Your task to perform on an android device: Add "sony triple a" to the cart on target.com, then select checkout. Image 0: 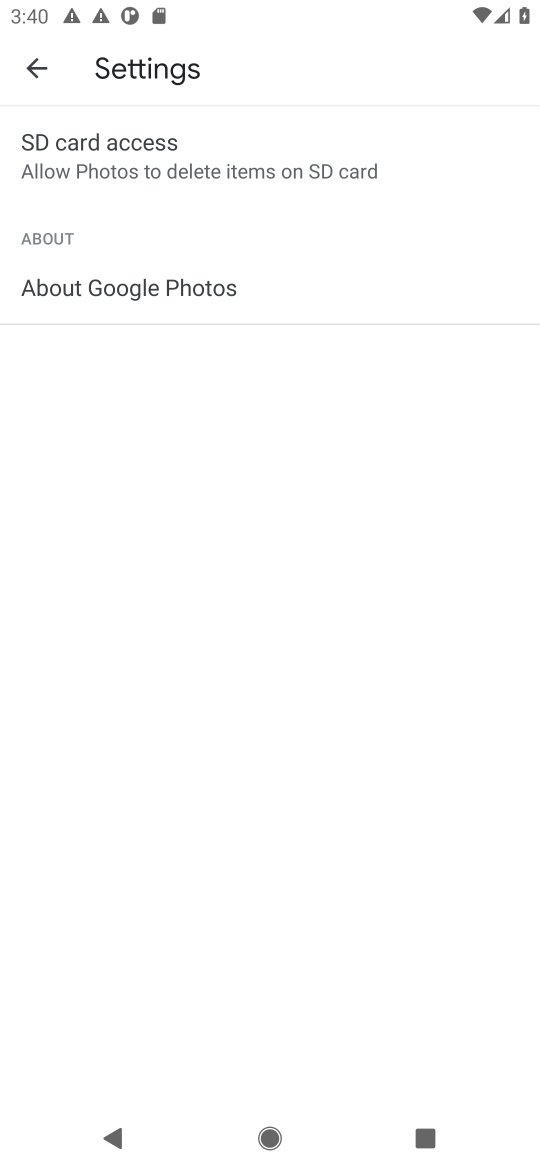
Step 0: press home button
Your task to perform on an android device: Add "sony triple a" to the cart on target.com, then select checkout. Image 1: 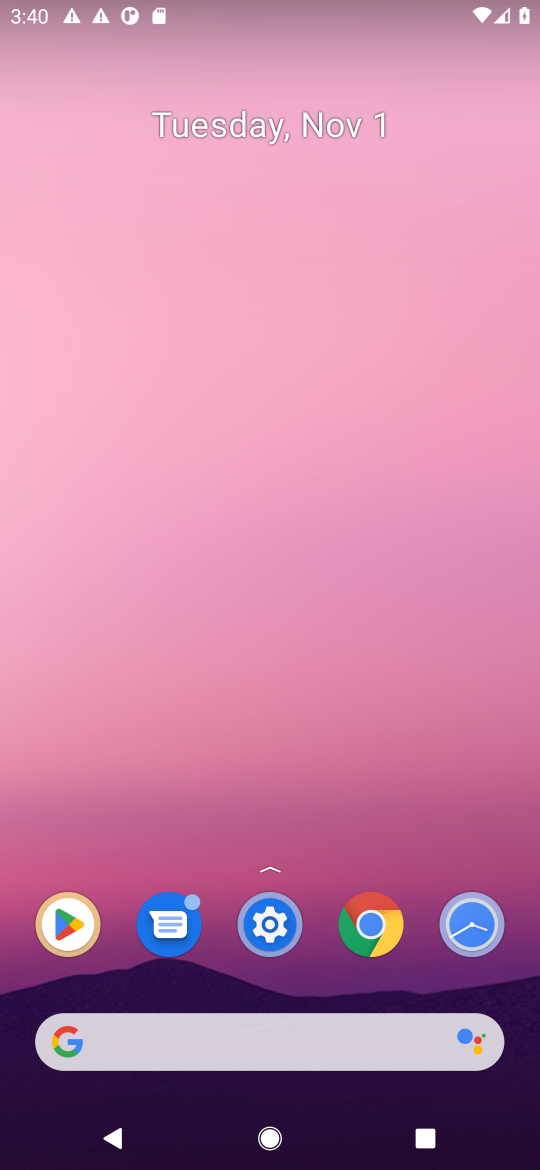
Step 1: drag from (182, 943) to (276, 5)
Your task to perform on an android device: Add "sony triple a" to the cart on target.com, then select checkout. Image 2: 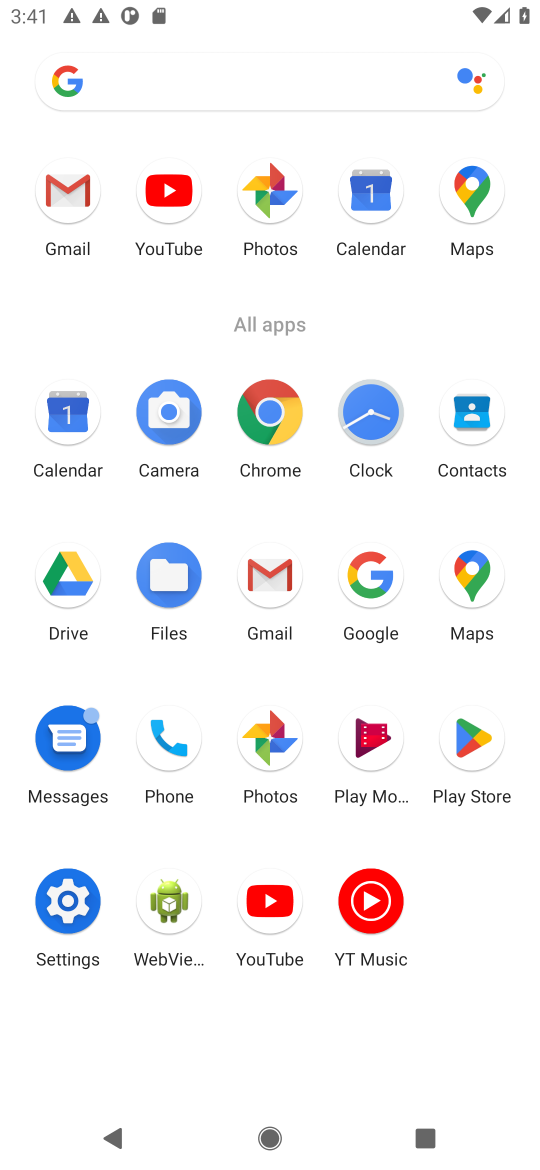
Step 2: click (276, 434)
Your task to perform on an android device: Add "sony triple a" to the cart on target.com, then select checkout. Image 3: 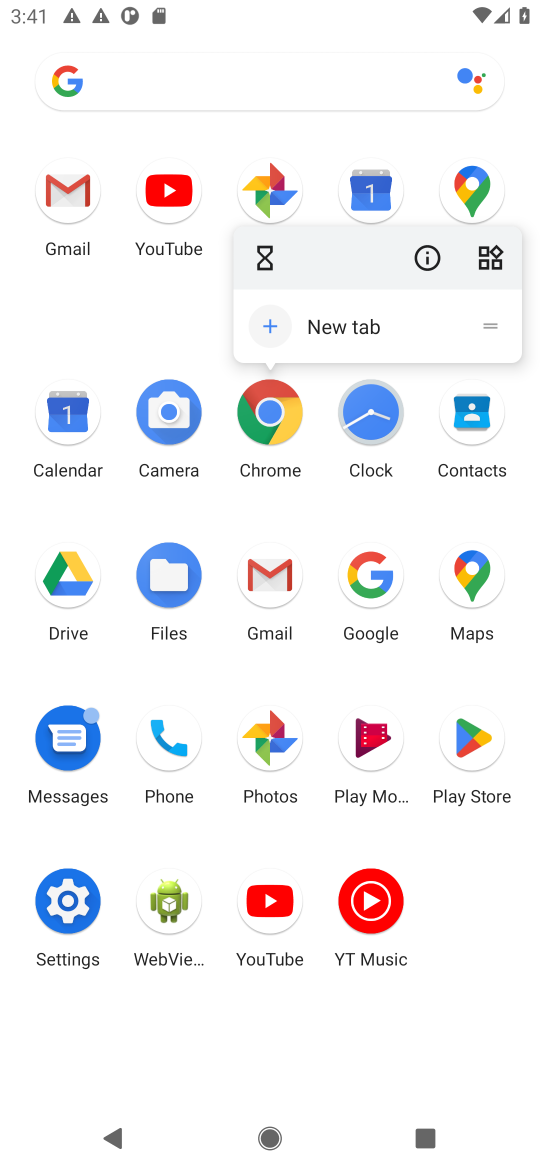
Step 3: click (276, 433)
Your task to perform on an android device: Add "sony triple a" to the cart on target.com, then select checkout. Image 4: 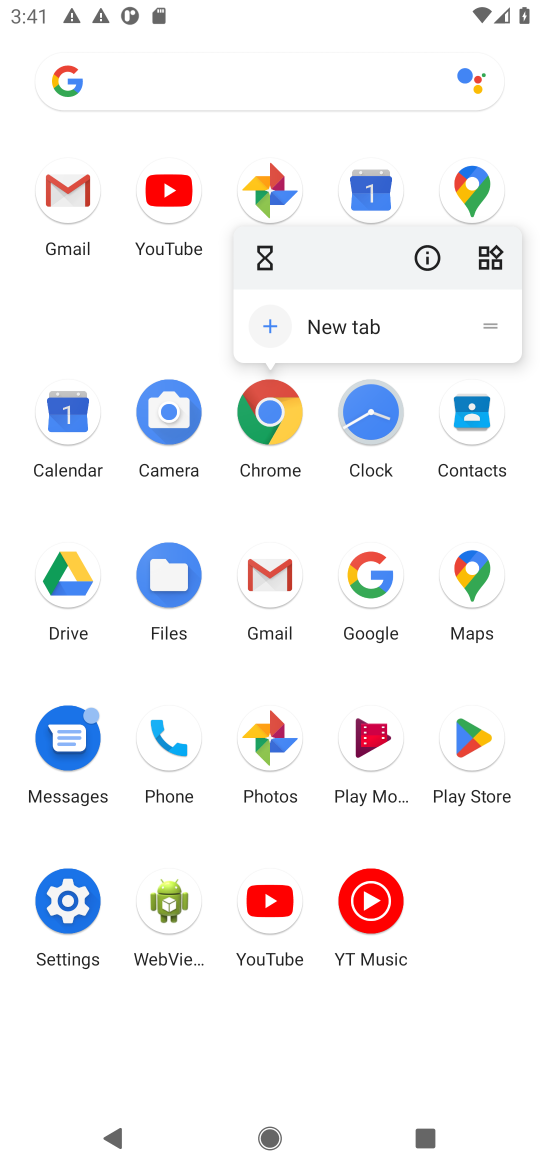
Step 4: click (273, 418)
Your task to perform on an android device: Add "sony triple a" to the cart on target.com, then select checkout. Image 5: 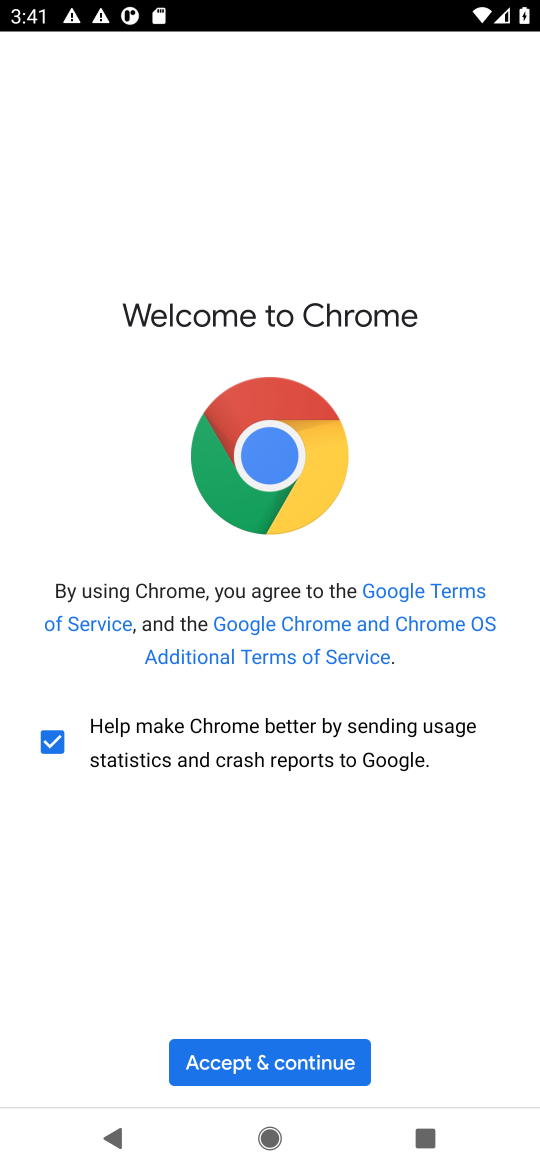
Step 5: click (231, 1062)
Your task to perform on an android device: Add "sony triple a" to the cart on target.com, then select checkout. Image 6: 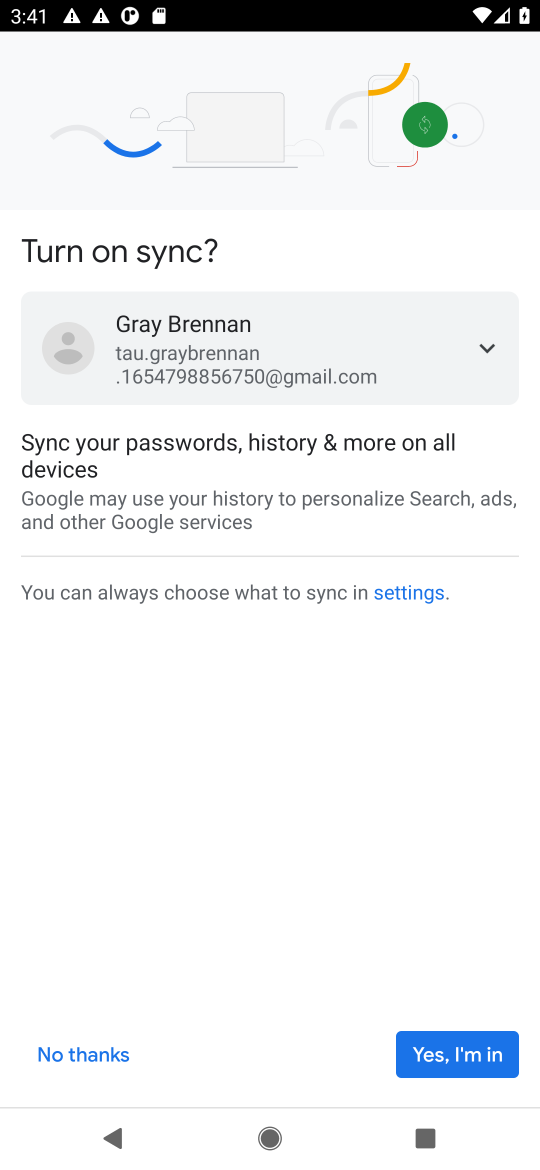
Step 6: click (437, 1047)
Your task to perform on an android device: Add "sony triple a" to the cart on target.com, then select checkout. Image 7: 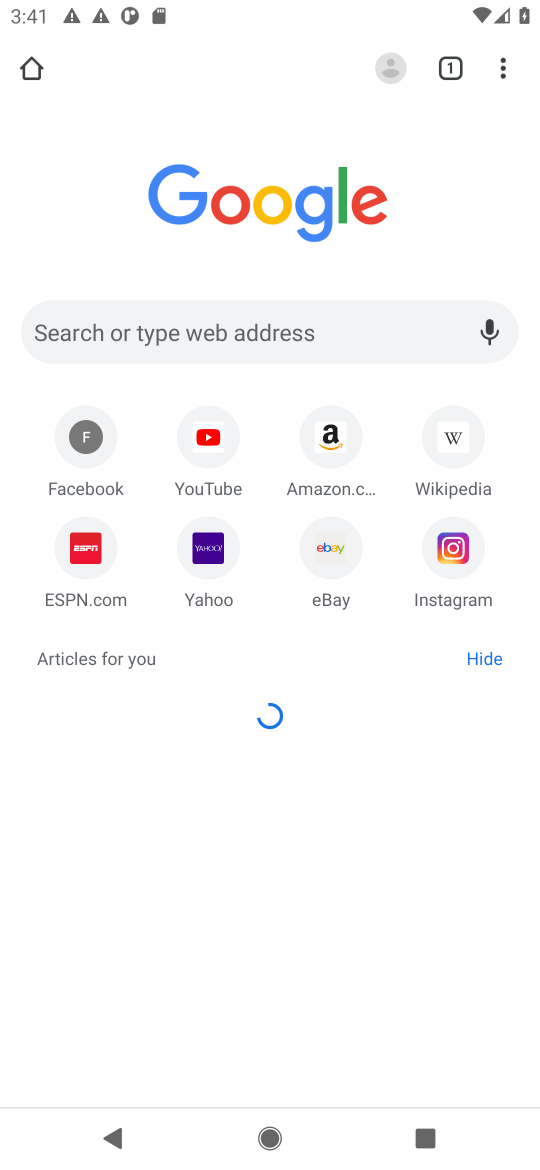
Step 7: click (205, 327)
Your task to perform on an android device: Add "sony triple a" to the cart on target.com, then select checkout. Image 8: 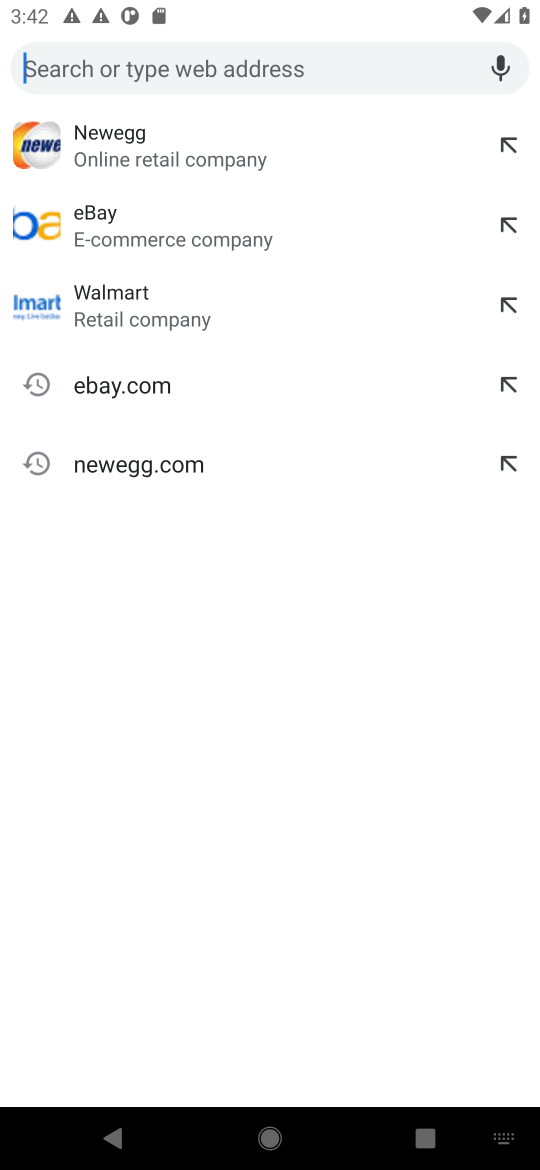
Step 8: type "target.com"
Your task to perform on an android device: Add "sony triple a" to the cart on target.com, then select checkout. Image 9: 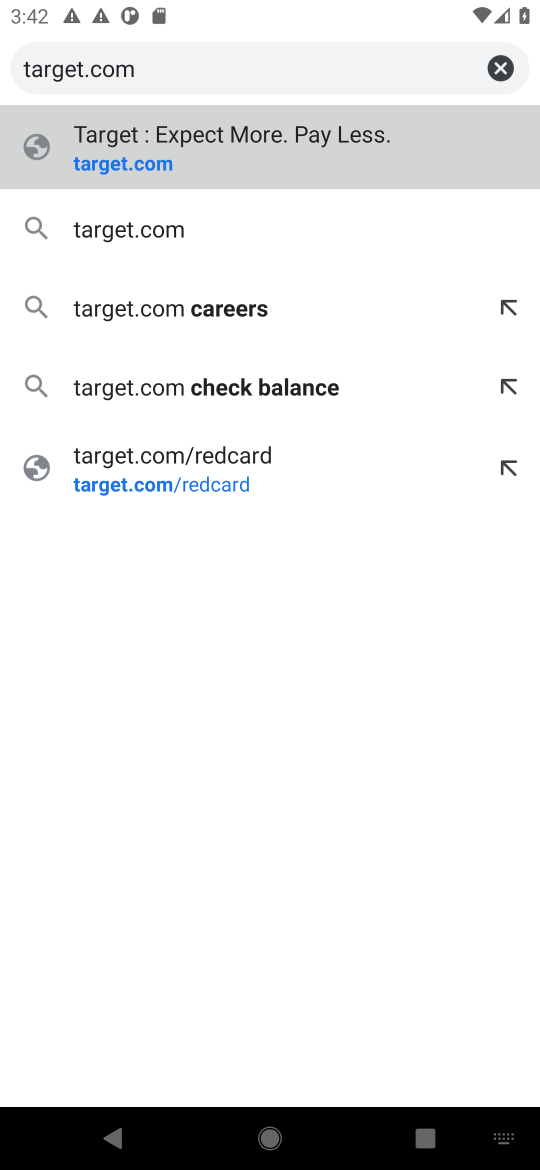
Step 9: press enter
Your task to perform on an android device: Add "sony triple a" to the cart on target.com, then select checkout. Image 10: 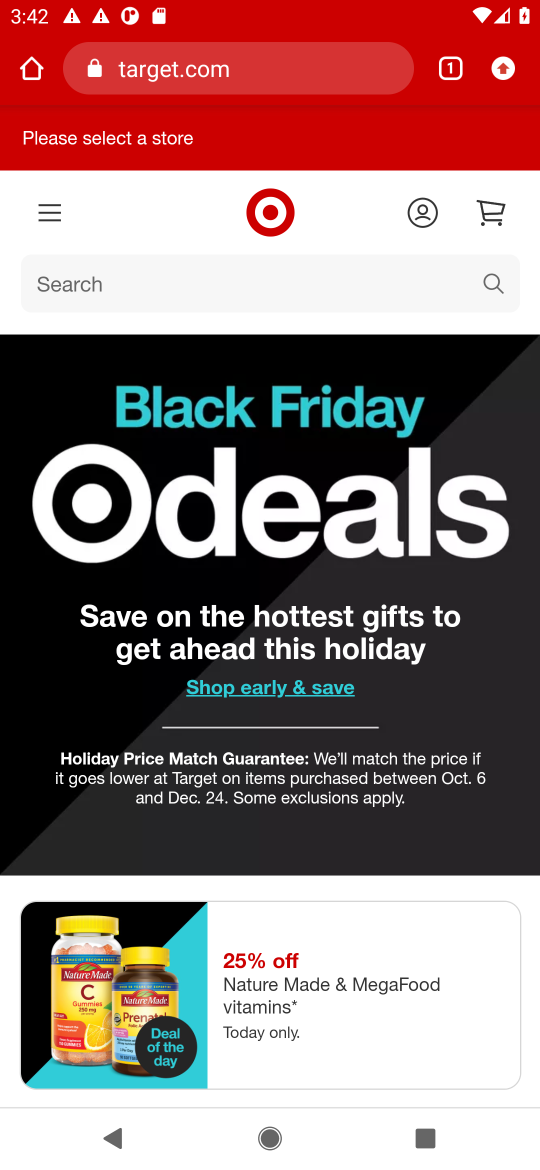
Step 10: click (357, 274)
Your task to perform on an android device: Add "sony triple a" to the cart on target.com, then select checkout. Image 11: 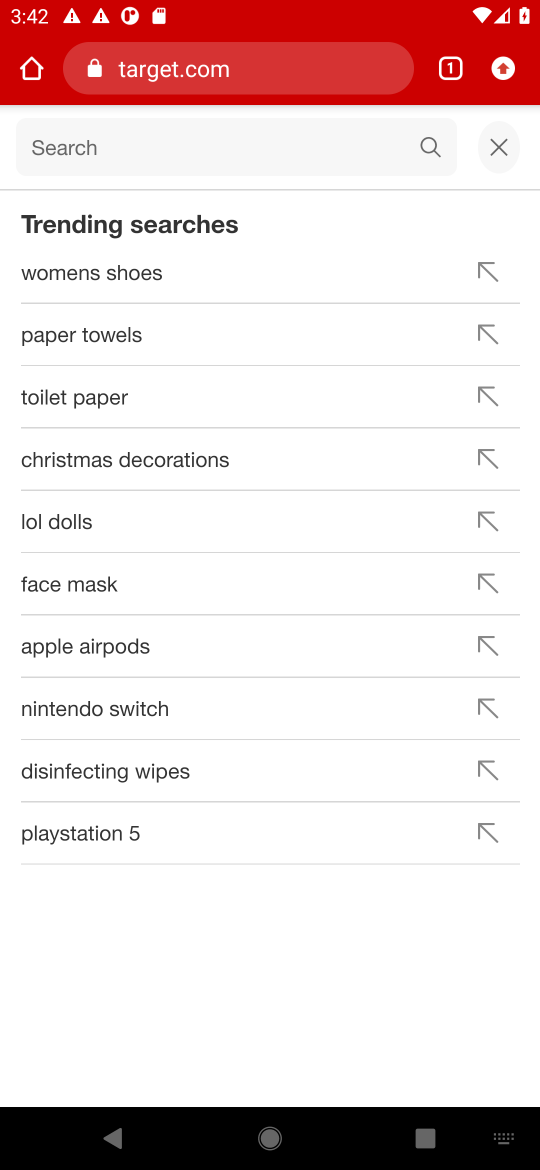
Step 11: type "sony triple"
Your task to perform on an android device: Add "sony triple a" to the cart on target.com, then select checkout. Image 12: 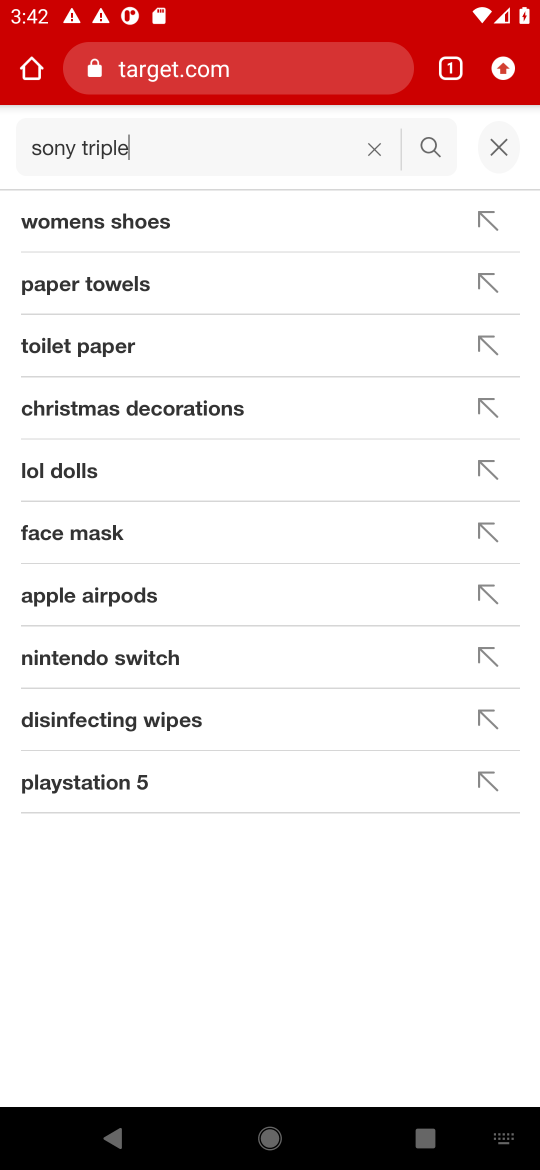
Step 12: press enter
Your task to perform on an android device: Add "sony triple a" to the cart on target.com, then select checkout. Image 13: 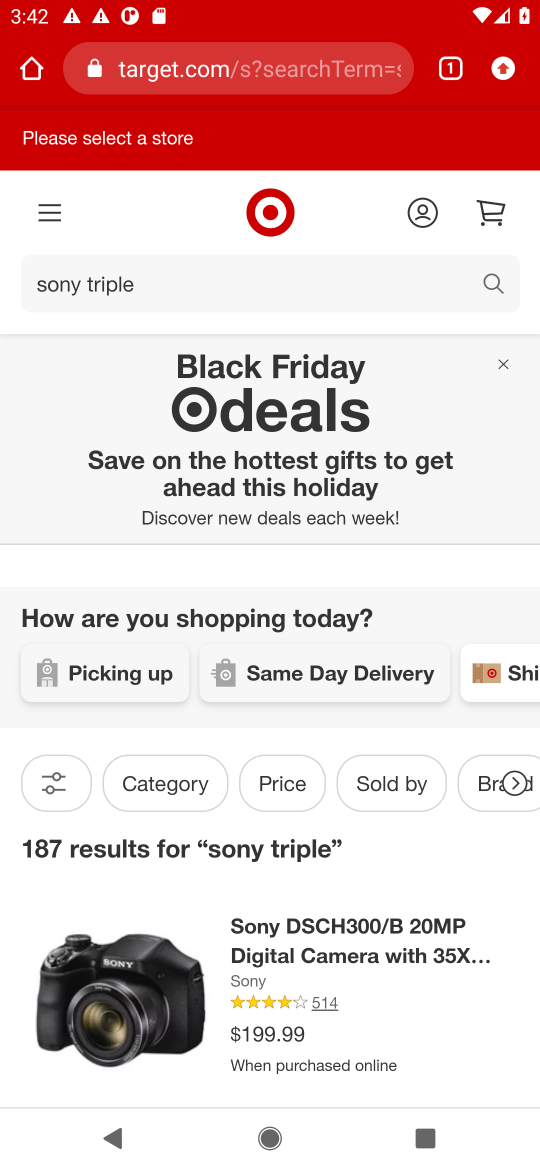
Step 13: drag from (56, 887) to (131, 358)
Your task to perform on an android device: Add "sony triple a" to the cart on target.com, then select checkout. Image 14: 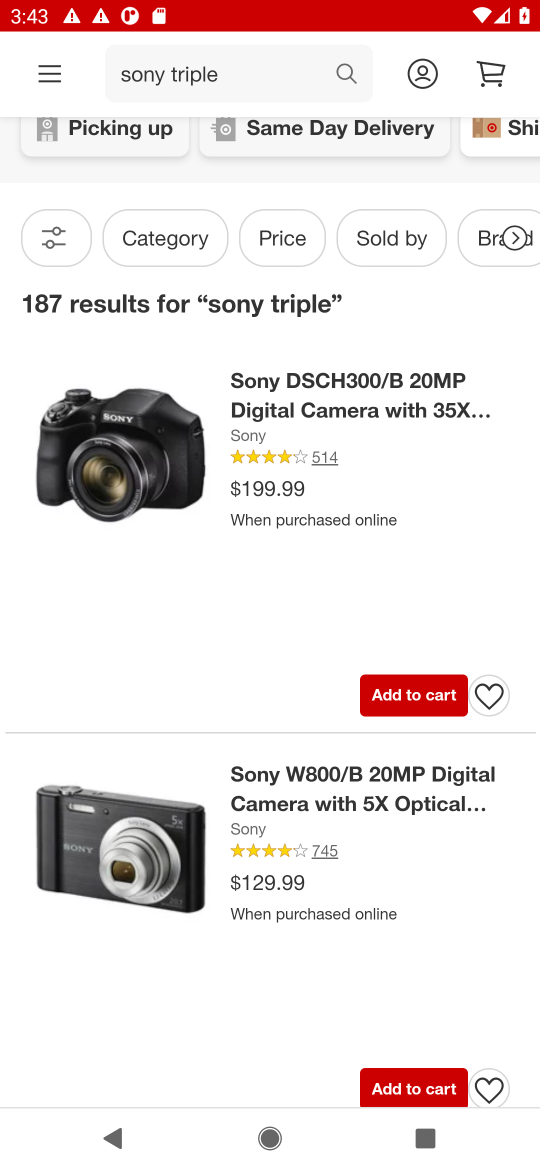
Step 14: click (385, 704)
Your task to perform on an android device: Add "sony triple a" to the cart on target.com, then select checkout. Image 15: 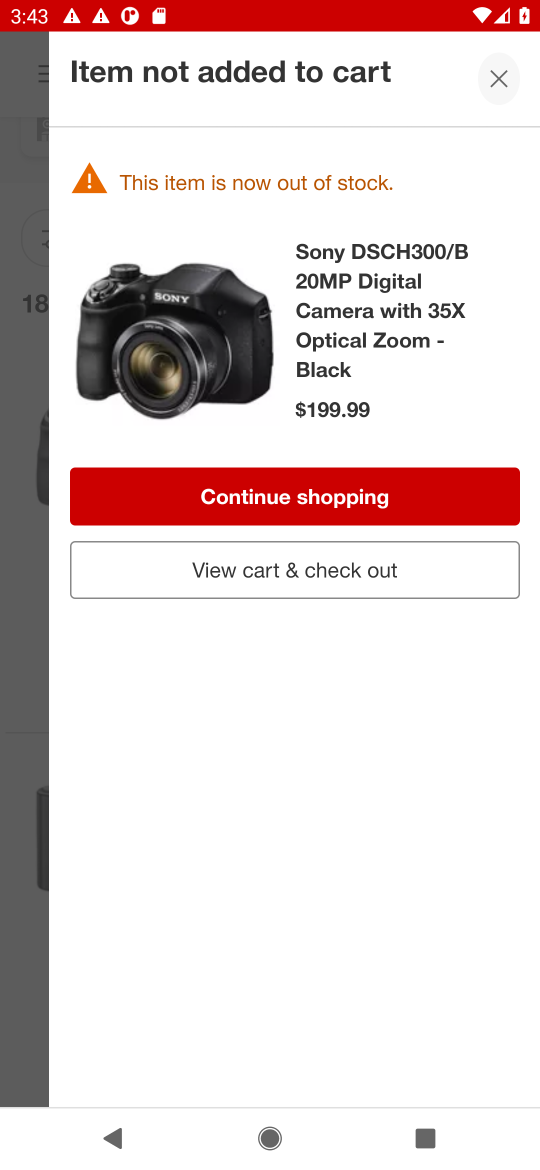
Step 15: click (360, 571)
Your task to perform on an android device: Add "sony triple a" to the cart on target.com, then select checkout. Image 16: 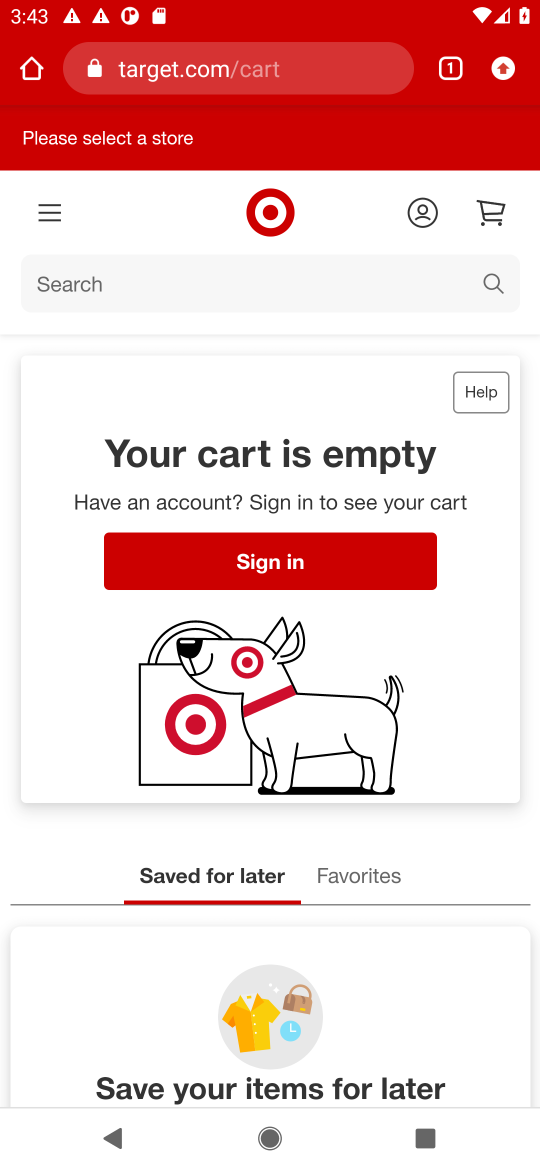
Step 16: task complete